Your task to perform on an android device: change the clock display to analog Image 0: 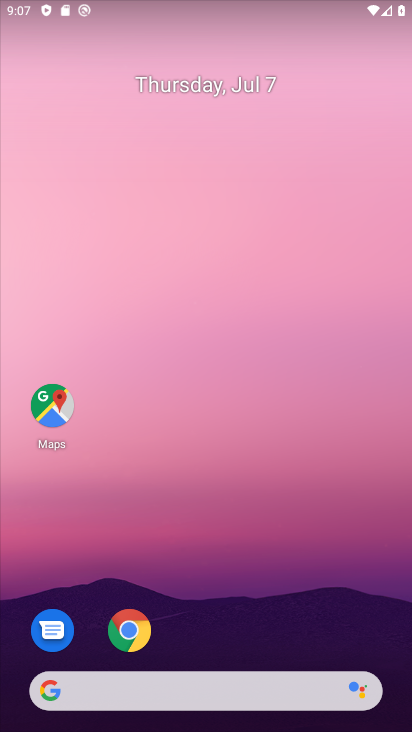
Step 0: drag from (211, 682) to (253, 176)
Your task to perform on an android device: change the clock display to analog Image 1: 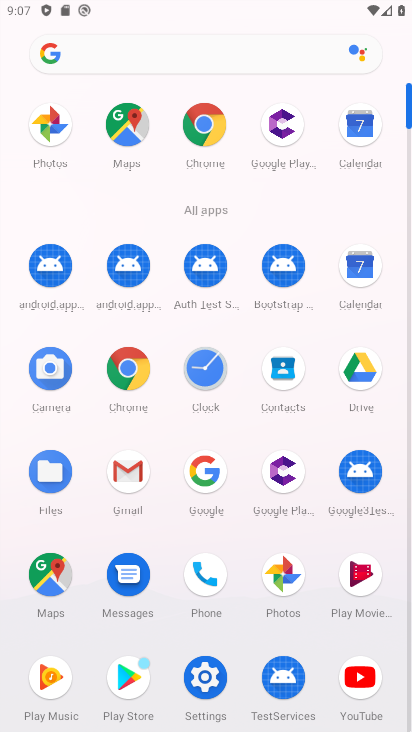
Step 1: click (194, 386)
Your task to perform on an android device: change the clock display to analog Image 2: 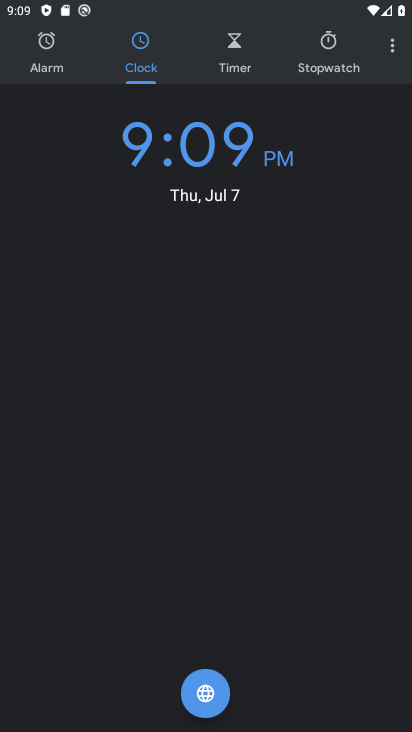
Step 2: click (385, 44)
Your task to perform on an android device: change the clock display to analog Image 3: 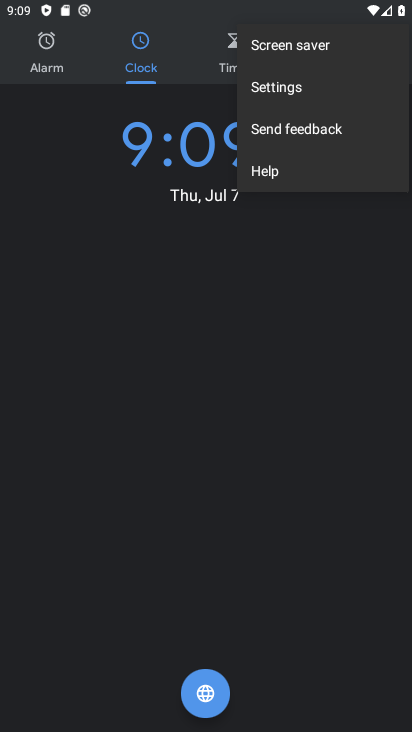
Step 3: click (291, 83)
Your task to perform on an android device: change the clock display to analog Image 4: 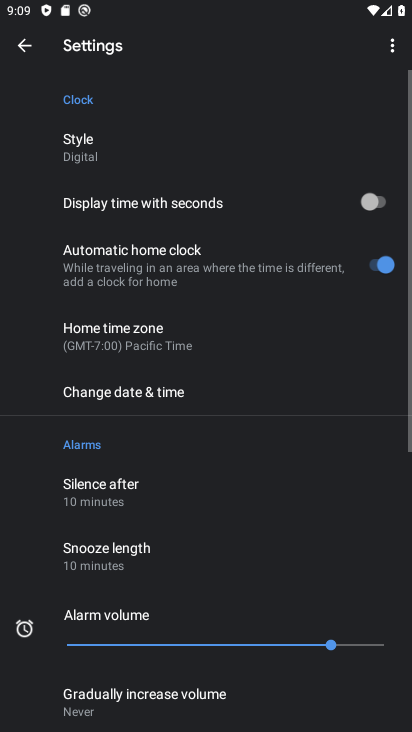
Step 4: click (75, 149)
Your task to perform on an android device: change the clock display to analog Image 5: 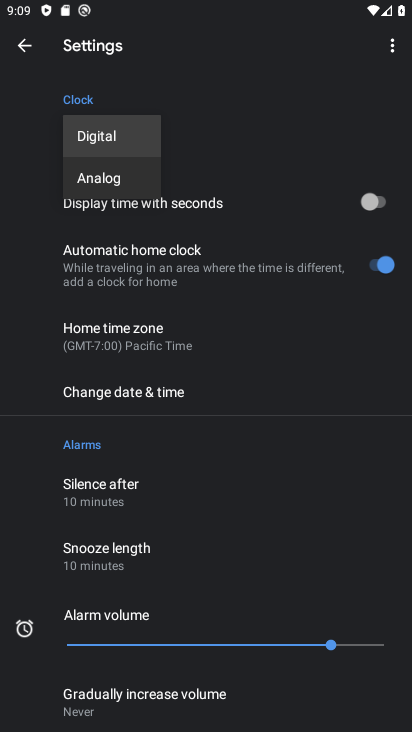
Step 5: click (99, 177)
Your task to perform on an android device: change the clock display to analog Image 6: 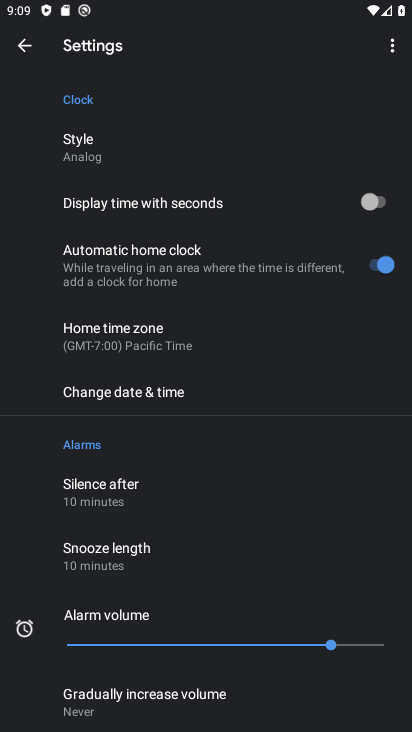
Step 6: task complete